Your task to perform on an android device: allow cookies in the chrome app Image 0: 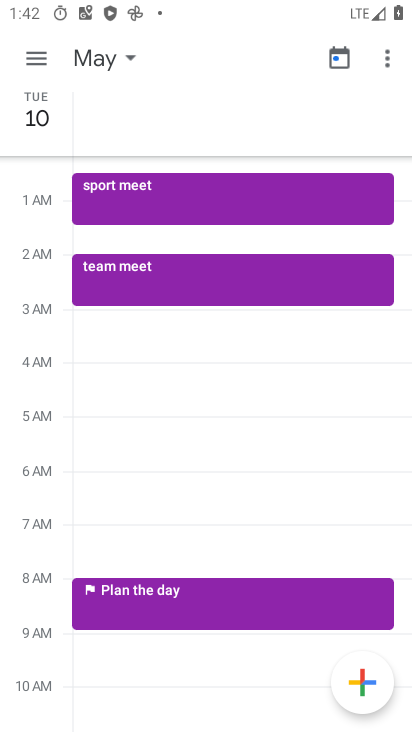
Step 0: press home button
Your task to perform on an android device: allow cookies in the chrome app Image 1: 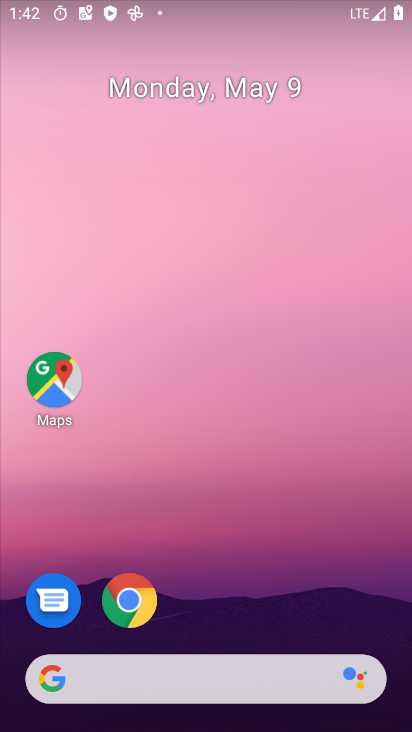
Step 1: drag from (199, 607) to (222, 258)
Your task to perform on an android device: allow cookies in the chrome app Image 2: 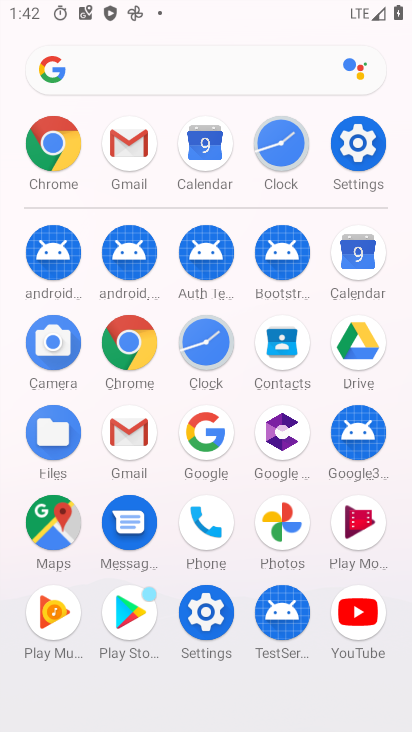
Step 2: click (135, 365)
Your task to perform on an android device: allow cookies in the chrome app Image 3: 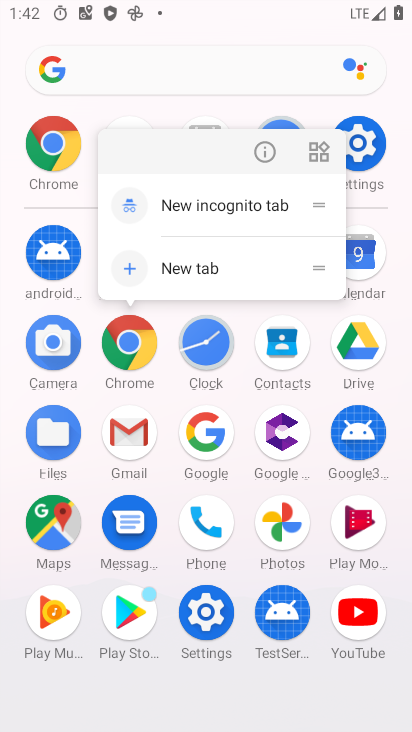
Step 3: click (260, 154)
Your task to perform on an android device: allow cookies in the chrome app Image 4: 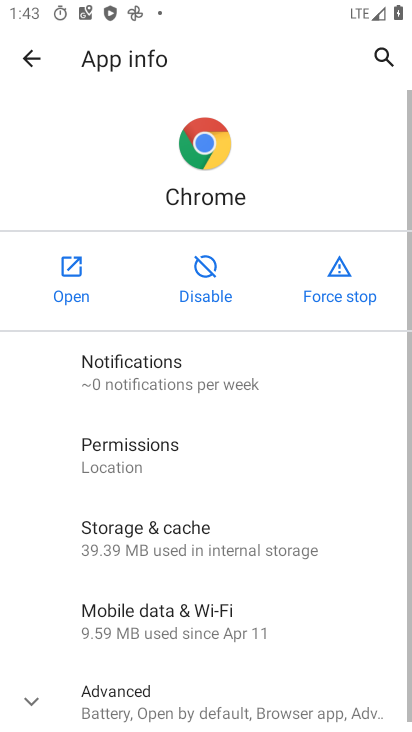
Step 4: click (77, 295)
Your task to perform on an android device: allow cookies in the chrome app Image 5: 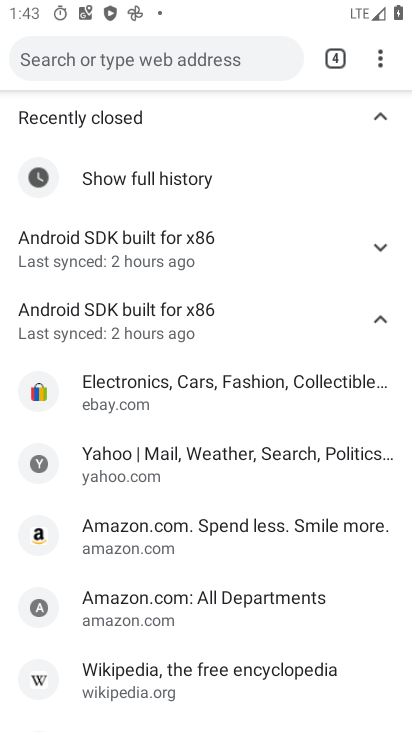
Step 5: click (373, 65)
Your task to perform on an android device: allow cookies in the chrome app Image 6: 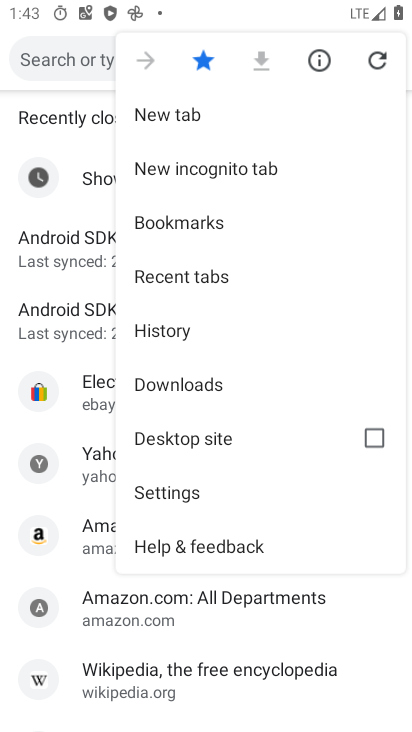
Step 6: click (162, 489)
Your task to perform on an android device: allow cookies in the chrome app Image 7: 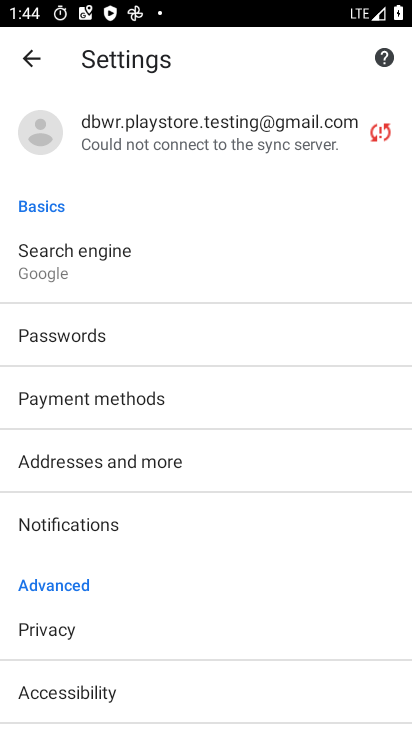
Step 7: drag from (146, 560) to (222, 281)
Your task to perform on an android device: allow cookies in the chrome app Image 8: 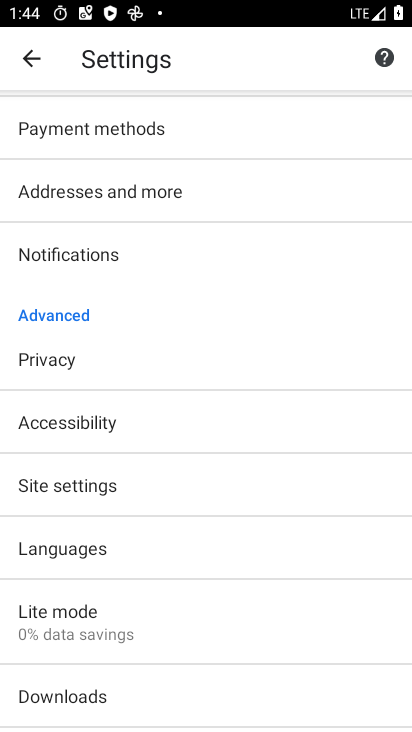
Step 8: click (95, 492)
Your task to perform on an android device: allow cookies in the chrome app Image 9: 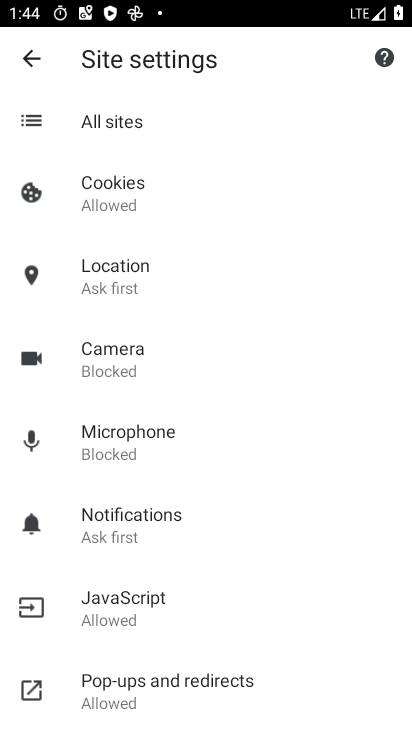
Step 9: click (171, 218)
Your task to perform on an android device: allow cookies in the chrome app Image 10: 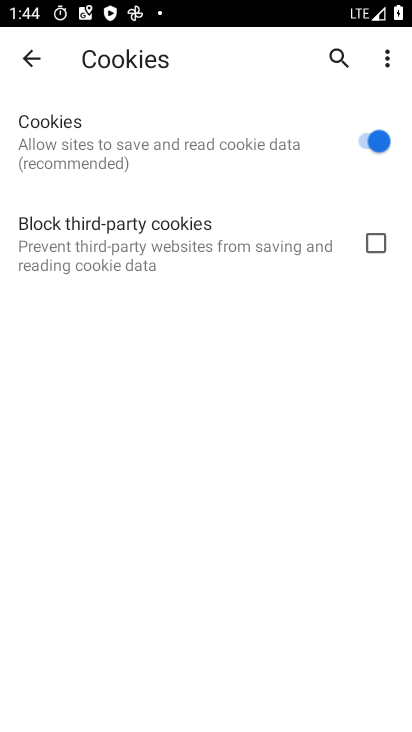
Step 10: task complete